Your task to perform on an android device: Open location settings Image 0: 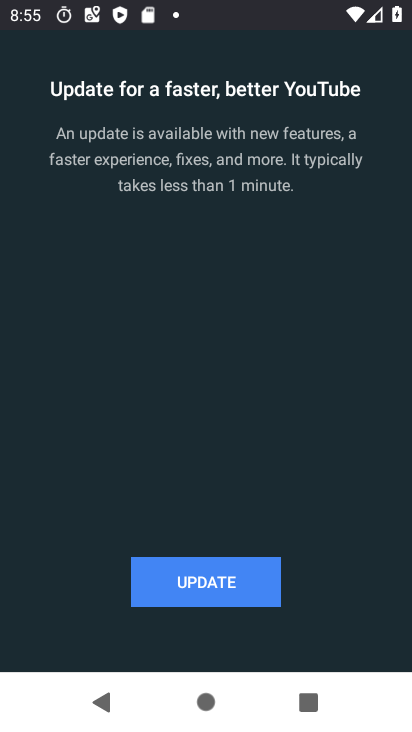
Step 0: press home button
Your task to perform on an android device: Open location settings Image 1: 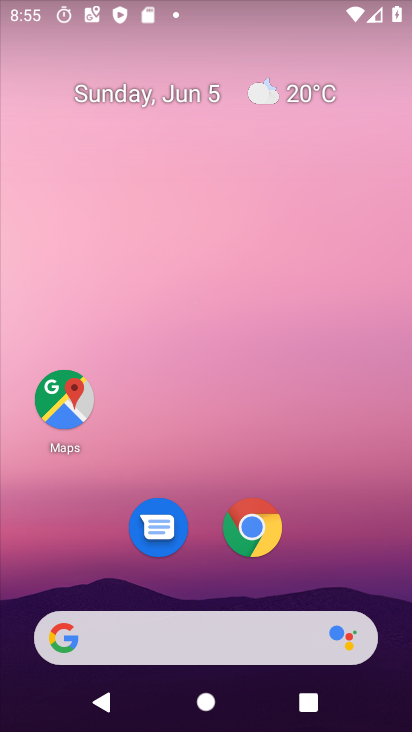
Step 1: drag from (351, 540) to (290, 36)
Your task to perform on an android device: Open location settings Image 2: 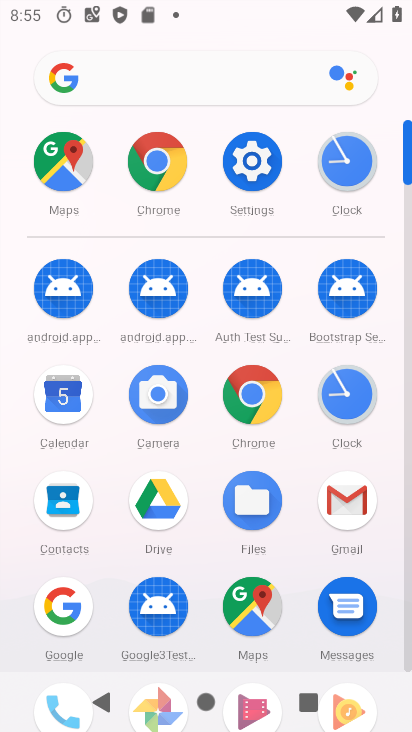
Step 2: drag from (338, 555) to (359, 139)
Your task to perform on an android device: Open location settings Image 3: 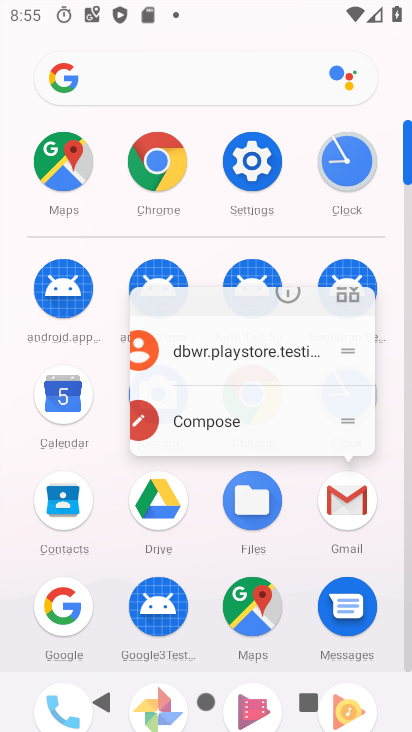
Step 3: click (259, 159)
Your task to perform on an android device: Open location settings Image 4: 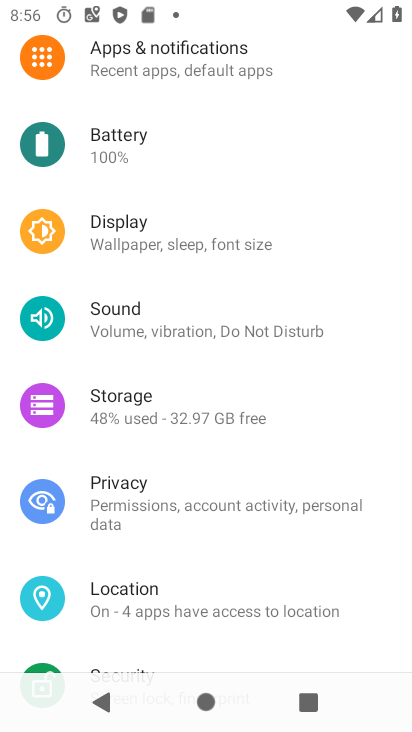
Step 4: click (161, 601)
Your task to perform on an android device: Open location settings Image 5: 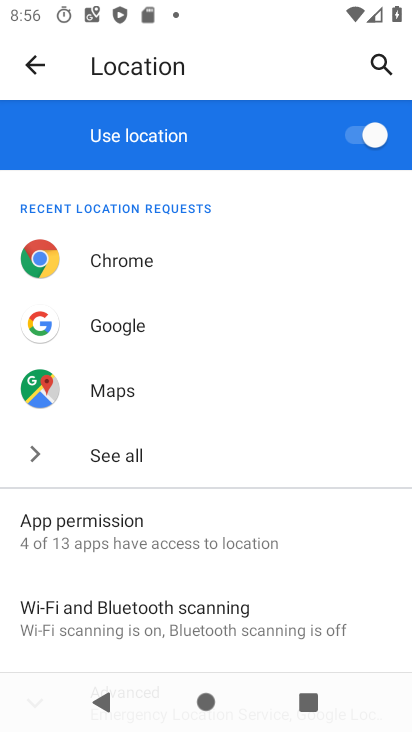
Step 5: task complete